Your task to perform on an android device: open app "Truecaller" Image 0: 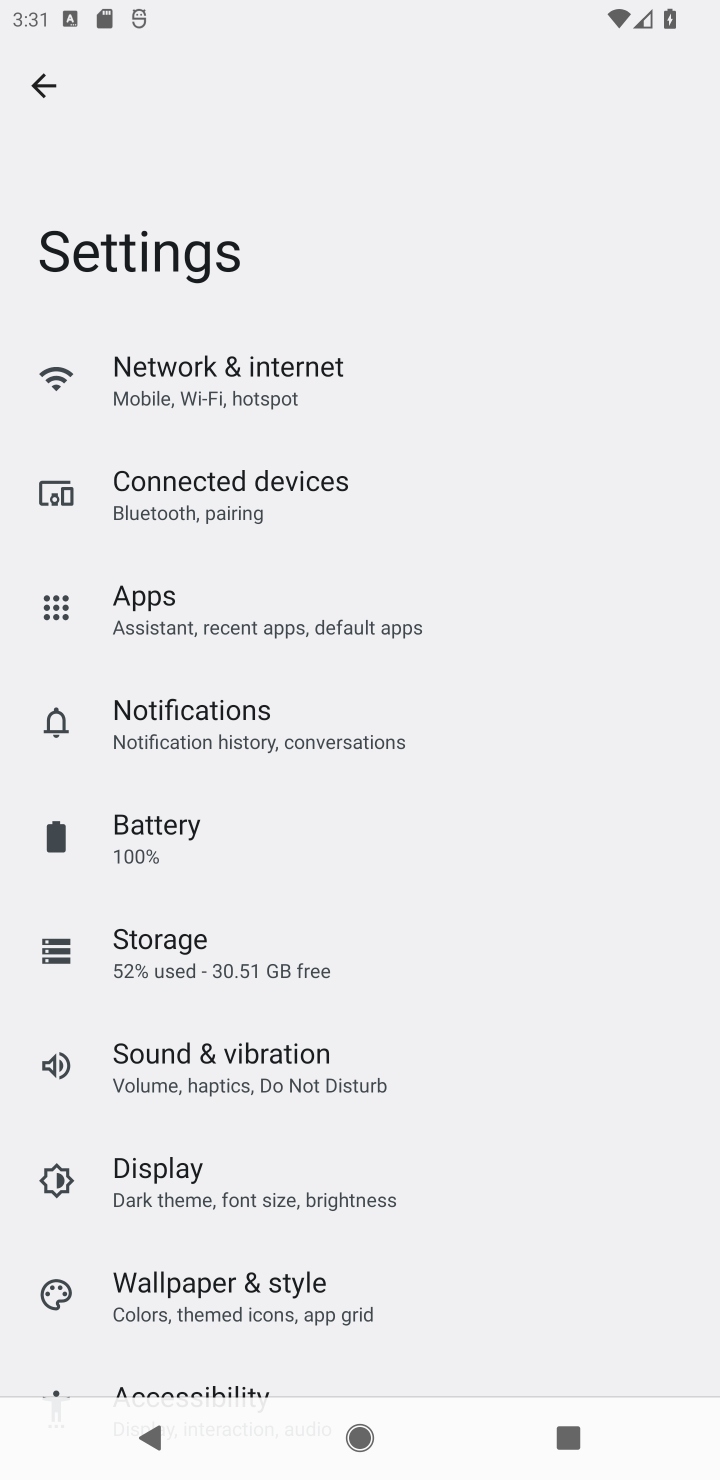
Step 0: press home button
Your task to perform on an android device: open app "Truecaller" Image 1: 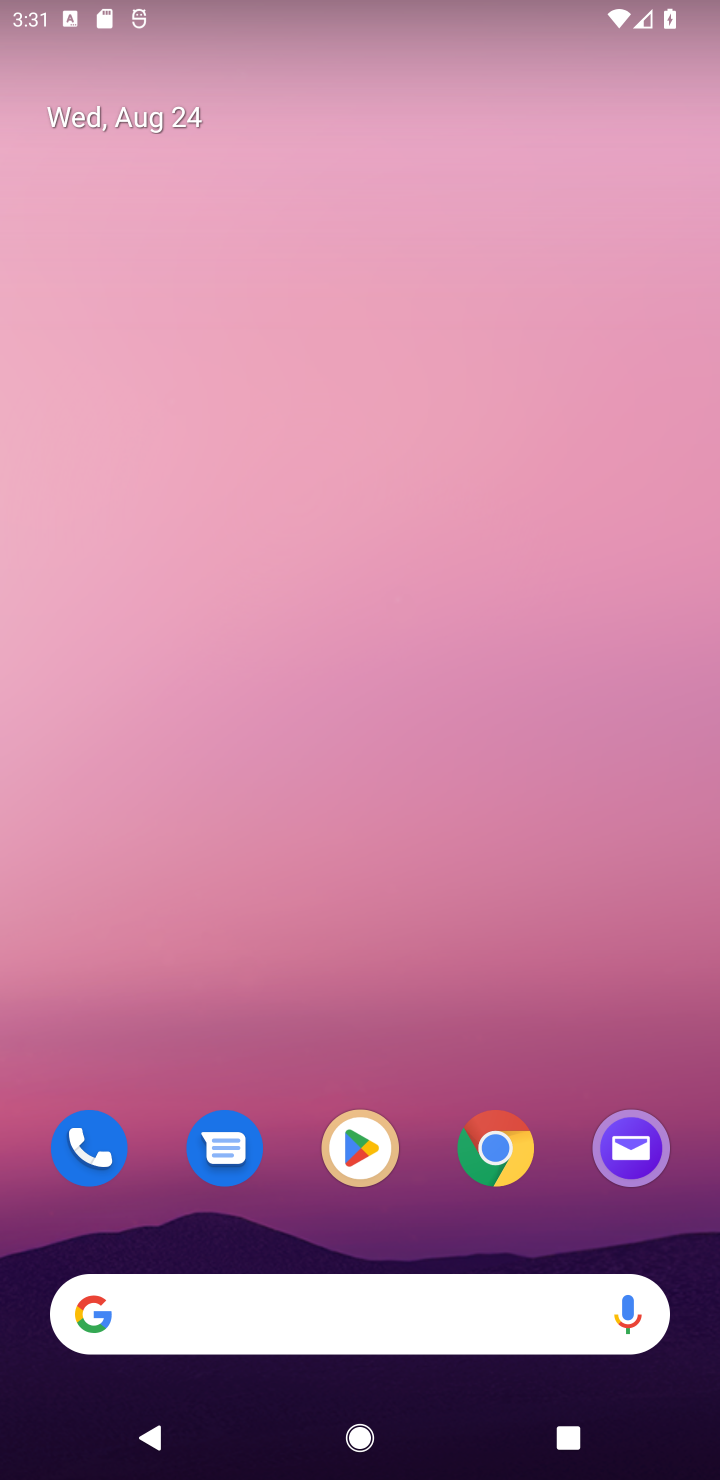
Step 1: click (364, 1154)
Your task to perform on an android device: open app "Truecaller" Image 2: 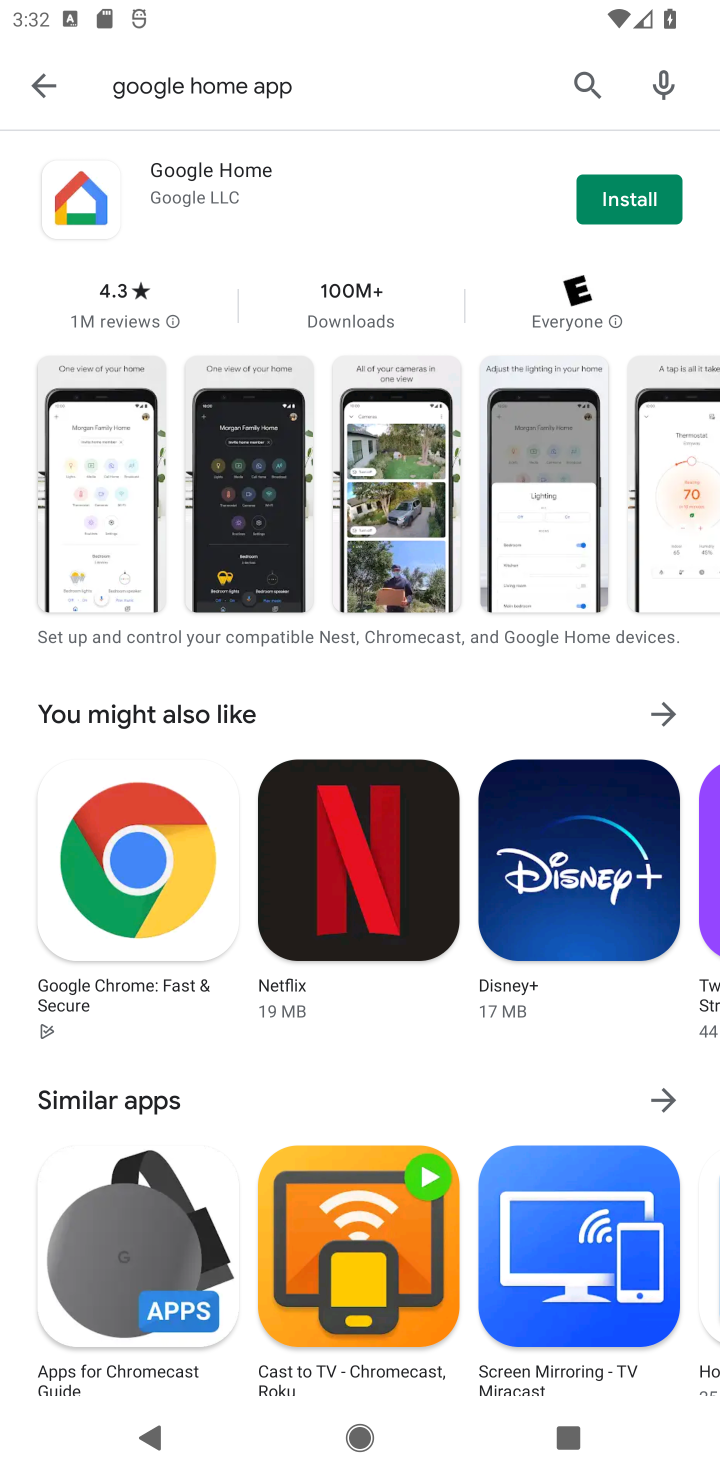
Step 2: click (592, 64)
Your task to perform on an android device: open app "Truecaller" Image 3: 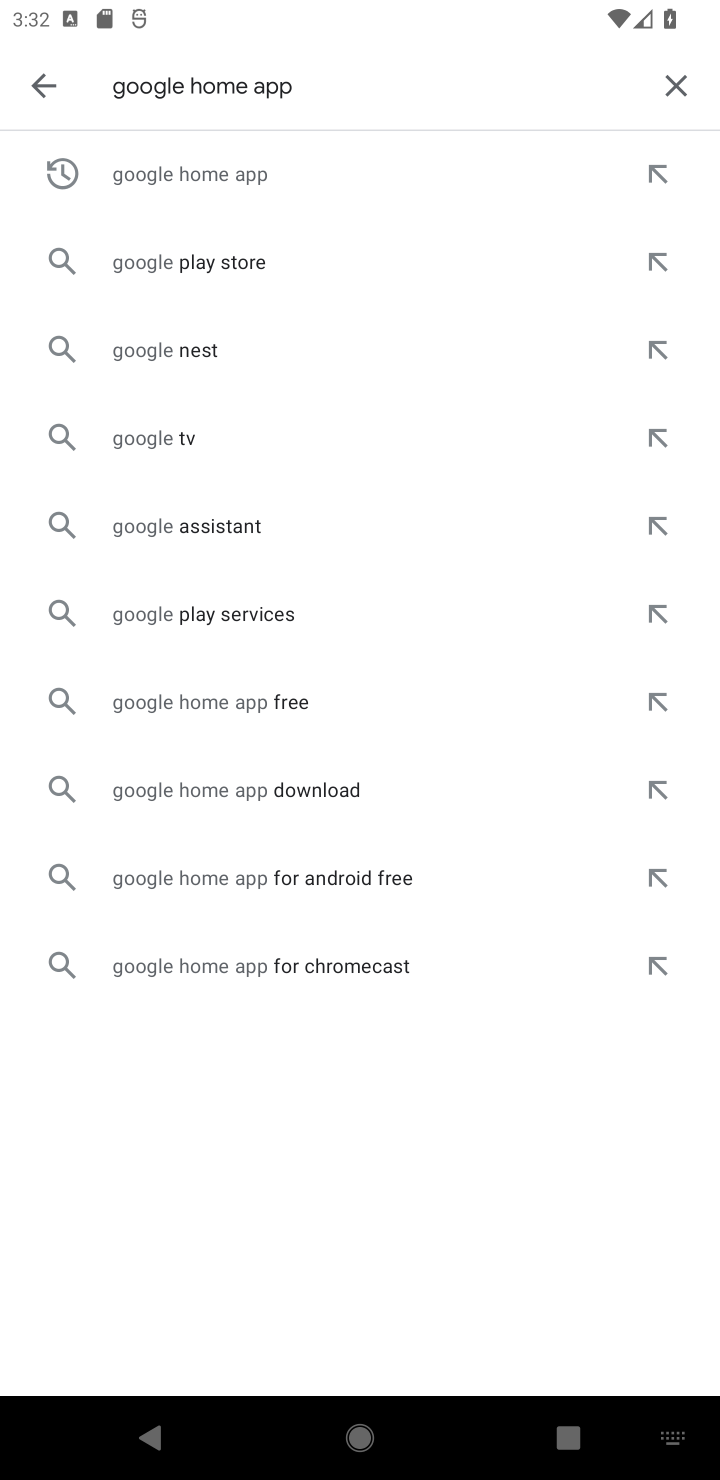
Step 3: click (668, 67)
Your task to perform on an android device: open app "Truecaller" Image 4: 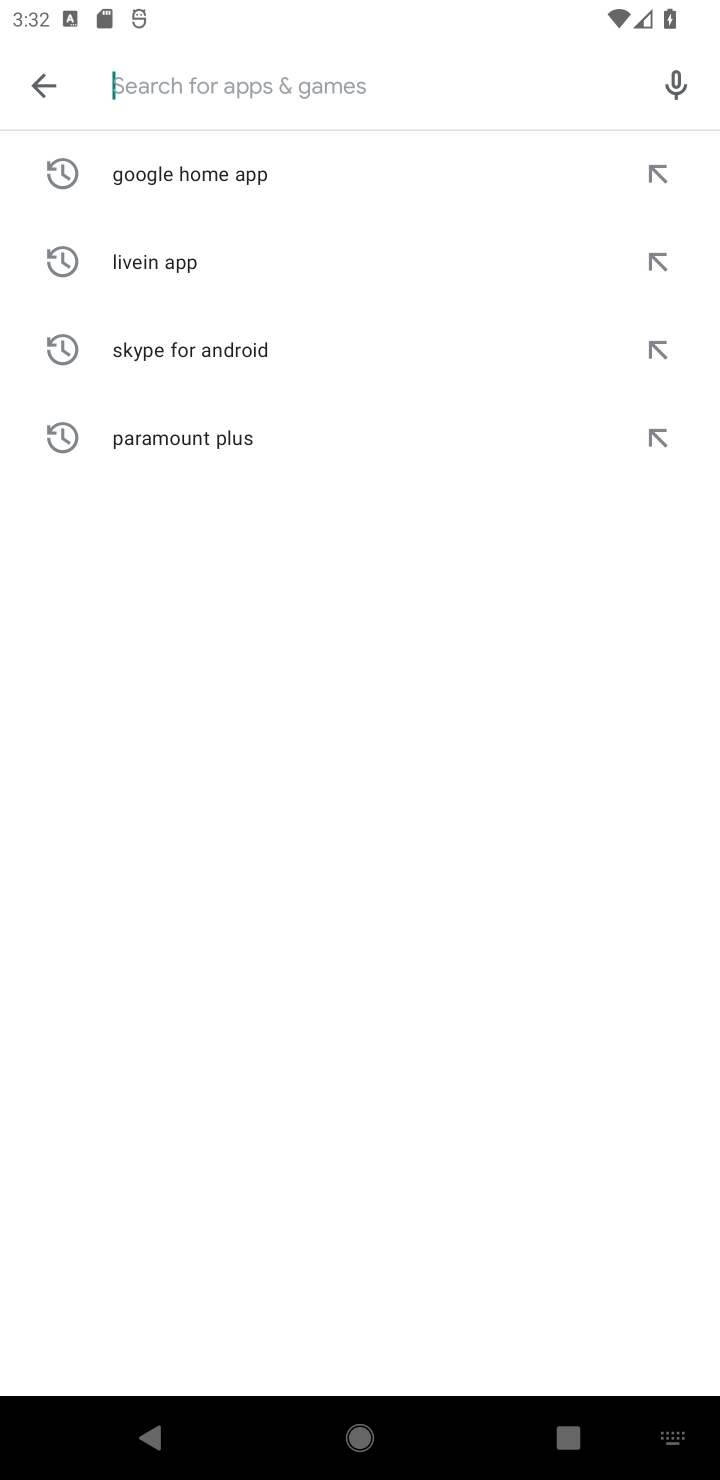
Step 4: click (344, 84)
Your task to perform on an android device: open app "Truecaller" Image 5: 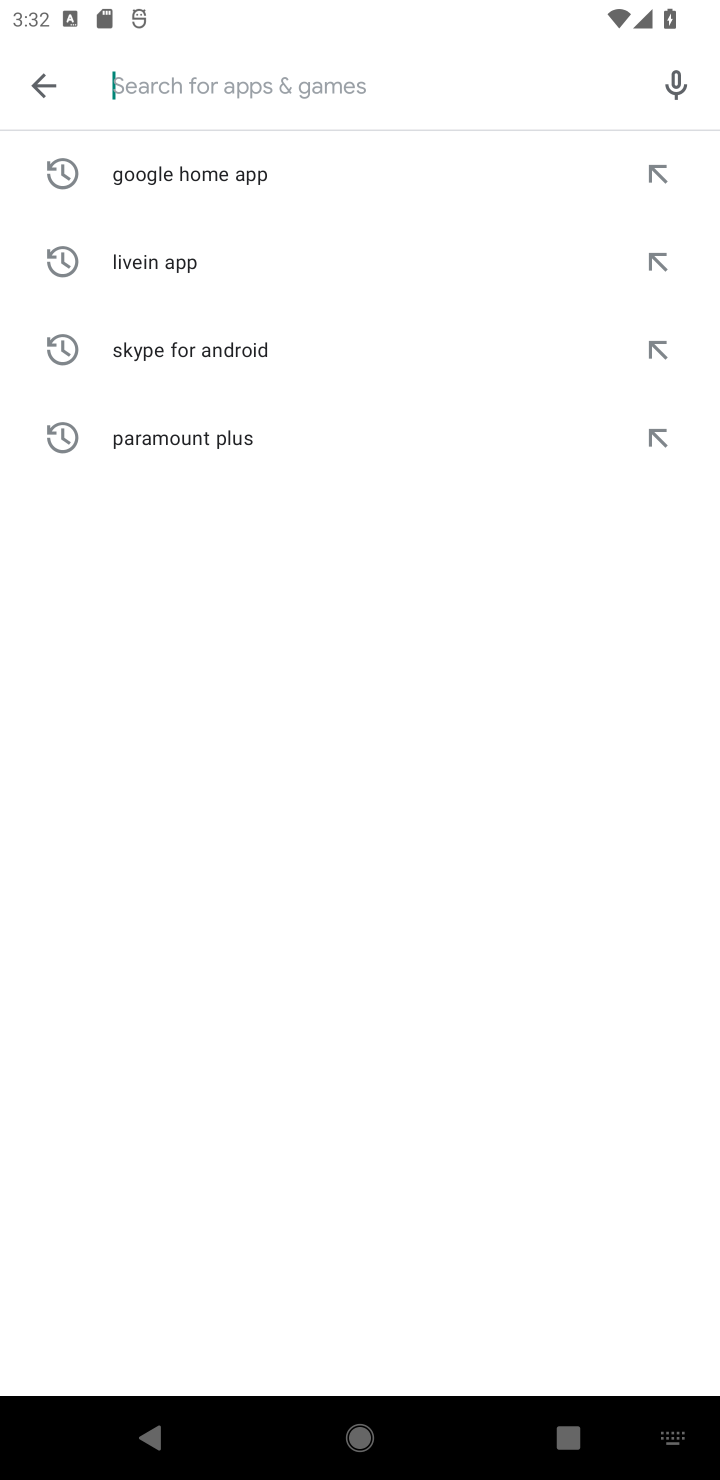
Step 5: click (207, 78)
Your task to perform on an android device: open app "Truecaller" Image 6: 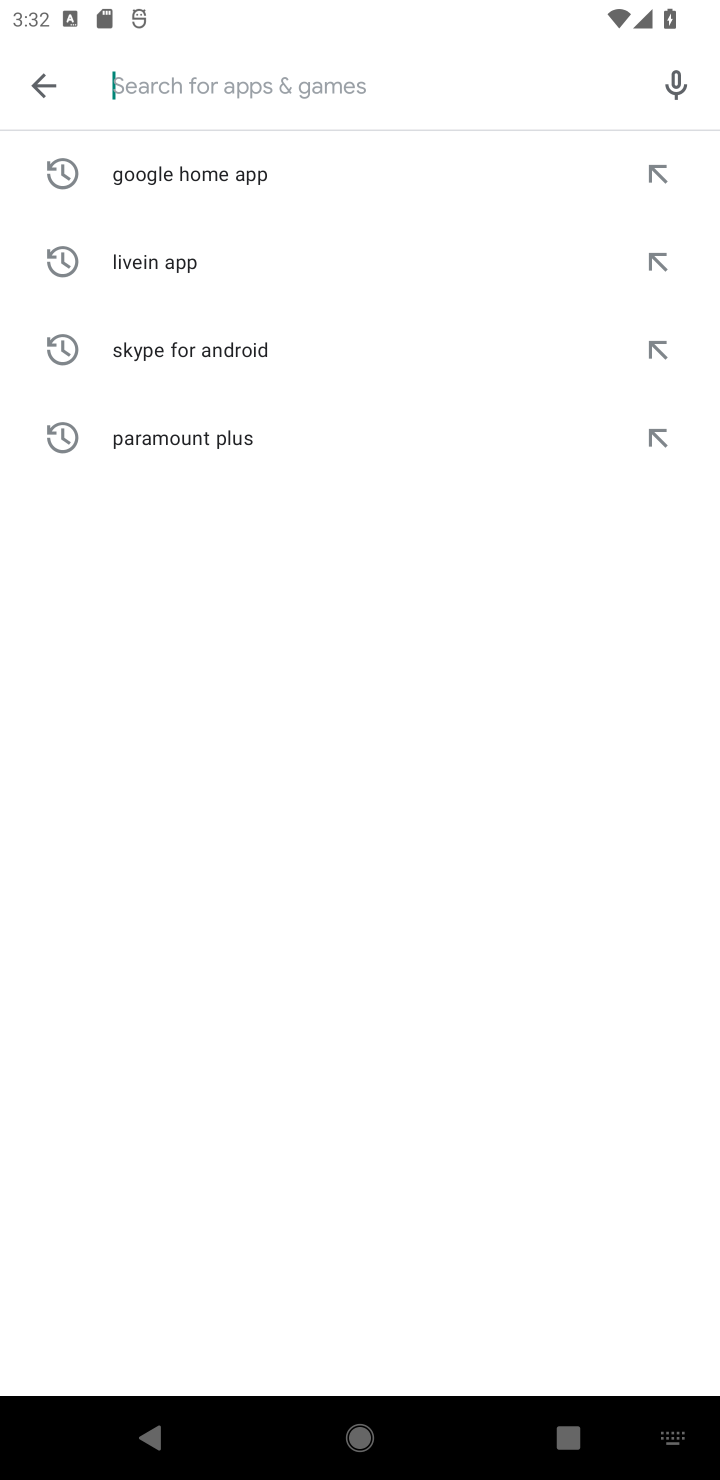
Step 6: type "Truecaller "
Your task to perform on an android device: open app "Truecaller" Image 7: 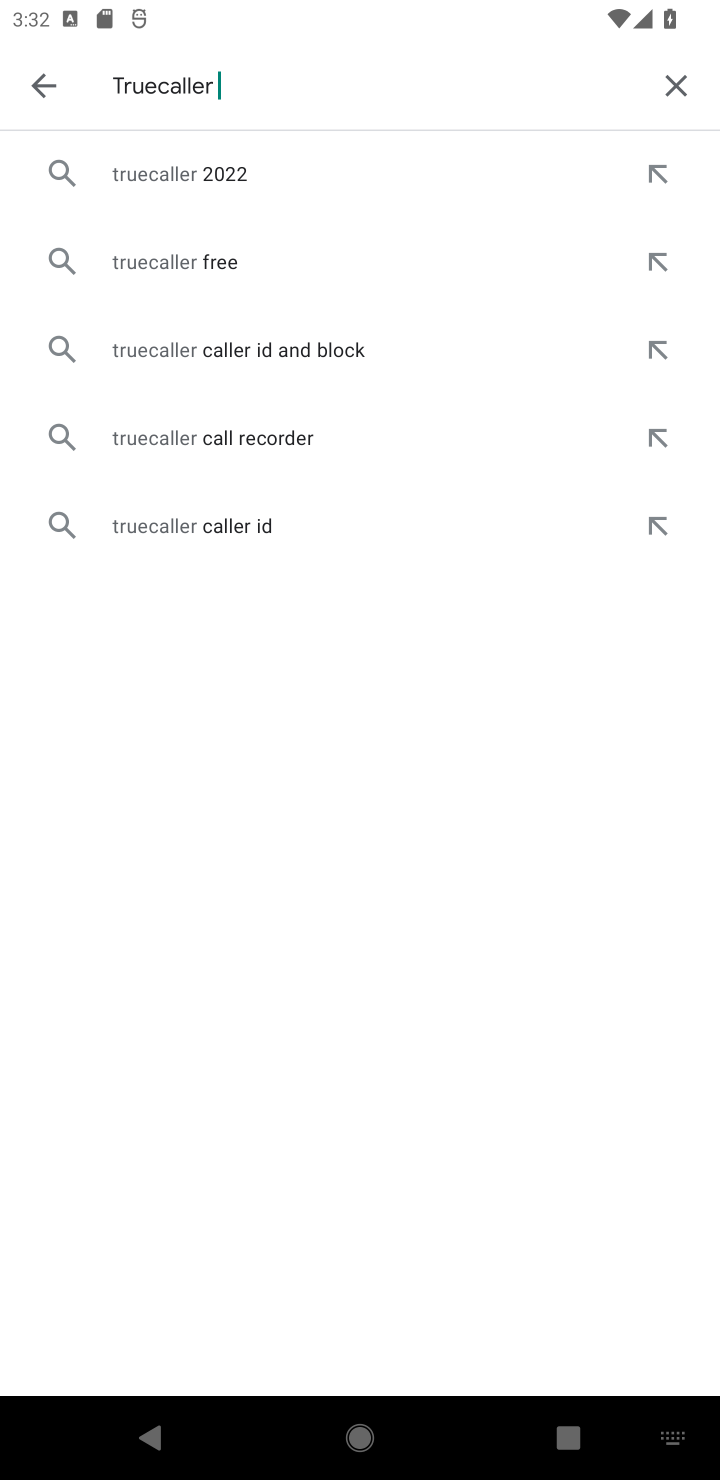
Step 7: click (168, 251)
Your task to perform on an android device: open app "Truecaller" Image 8: 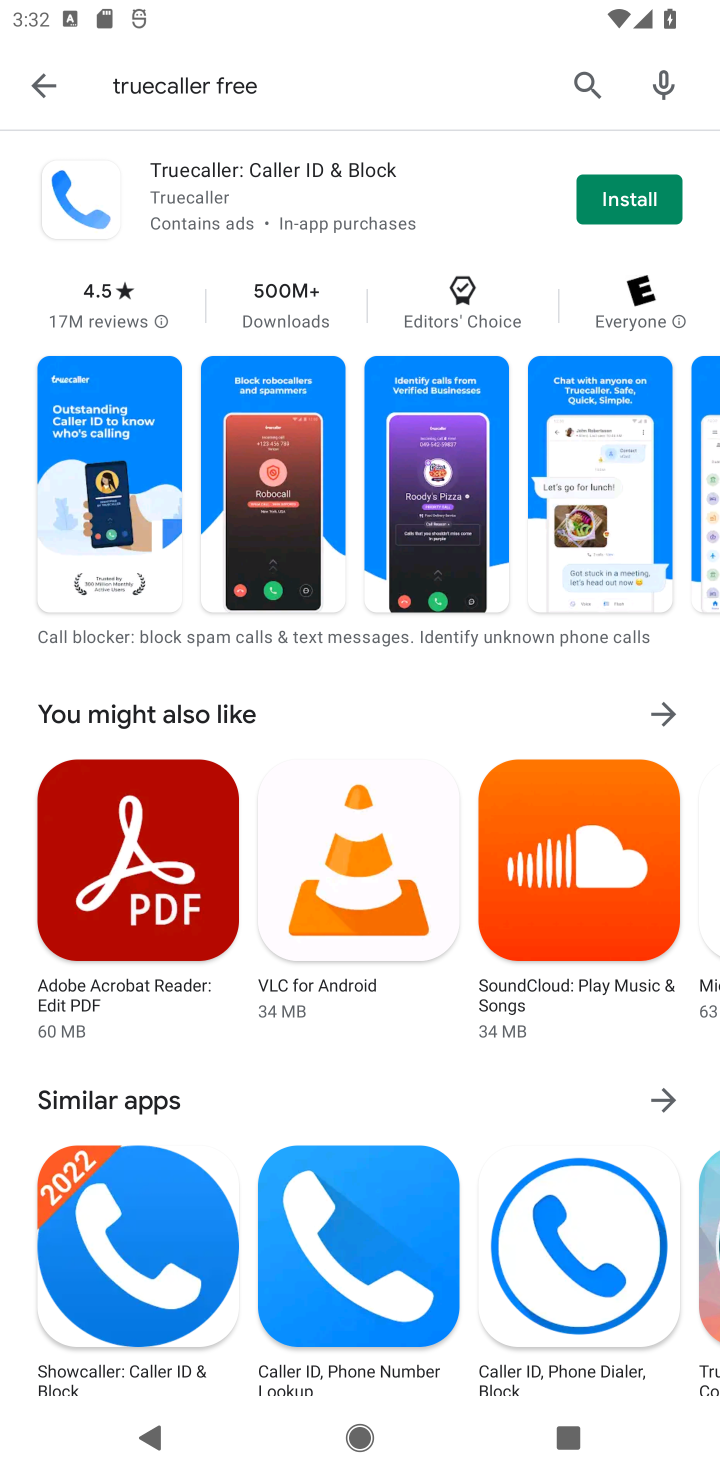
Step 8: click (635, 194)
Your task to perform on an android device: open app "Truecaller" Image 9: 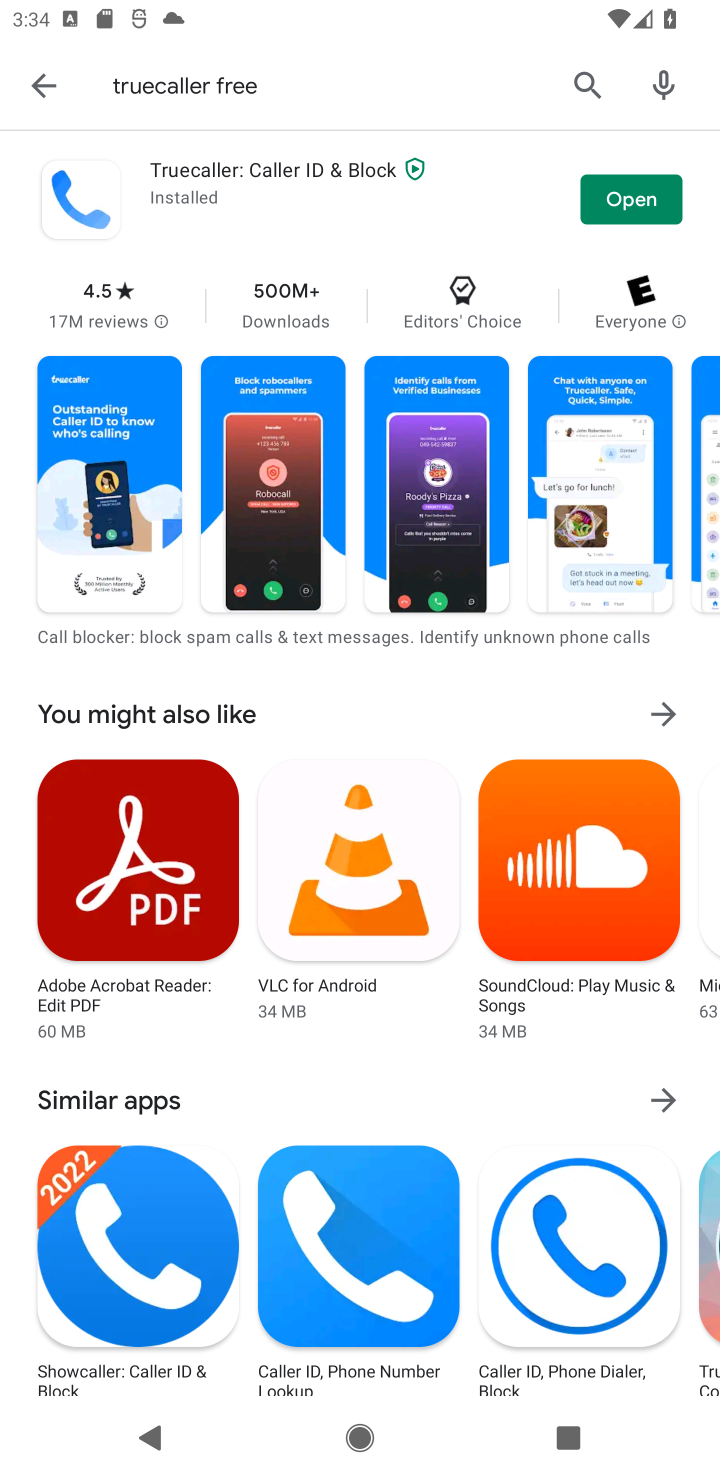
Step 9: task complete